Your task to perform on an android device: Open the stopwatch Image 0: 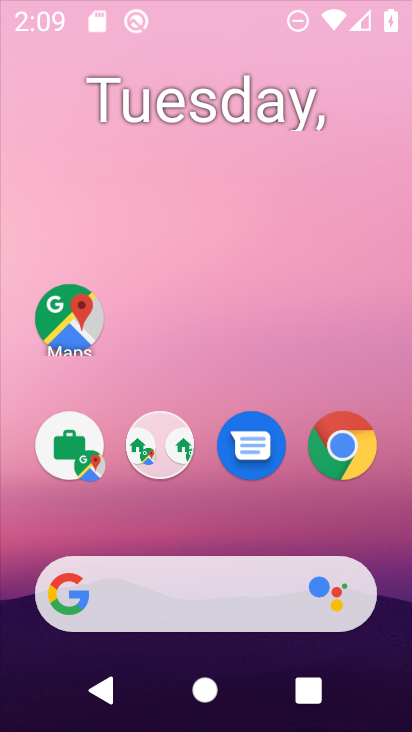
Step 0: drag from (257, 334) to (257, 179)
Your task to perform on an android device: Open the stopwatch Image 1: 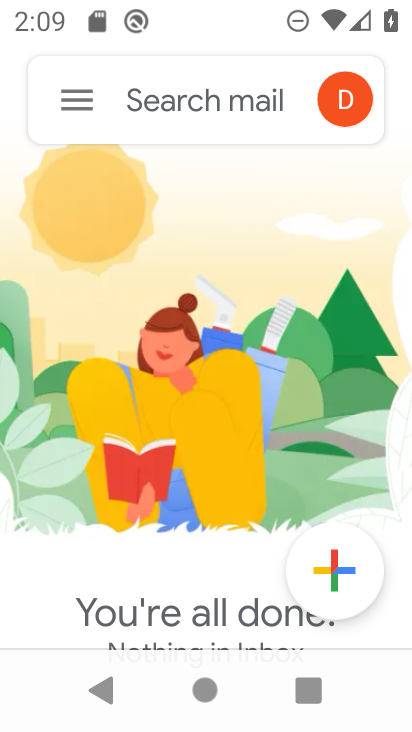
Step 1: press home button
Your task to perform on an android device: Open the stopwatch Image 2: 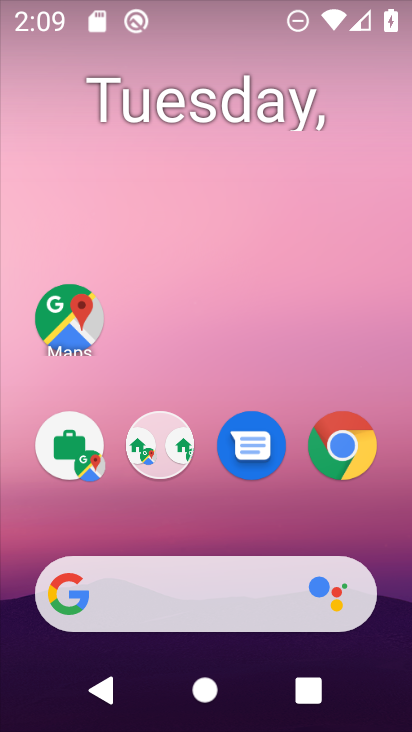
Step 2: drag from (302, 512) to (248, 193)
Your task to perform on an android device: Open the stopwatch Image 3: 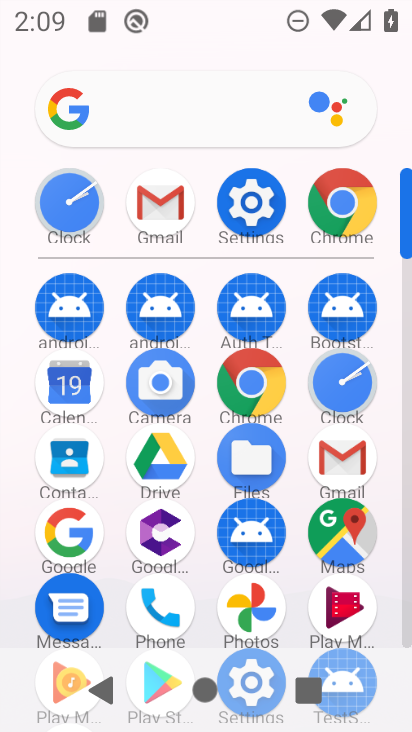
Step 3: click (327, 397)
Your task to perform on an android device: Open the stopwatch Image 4: 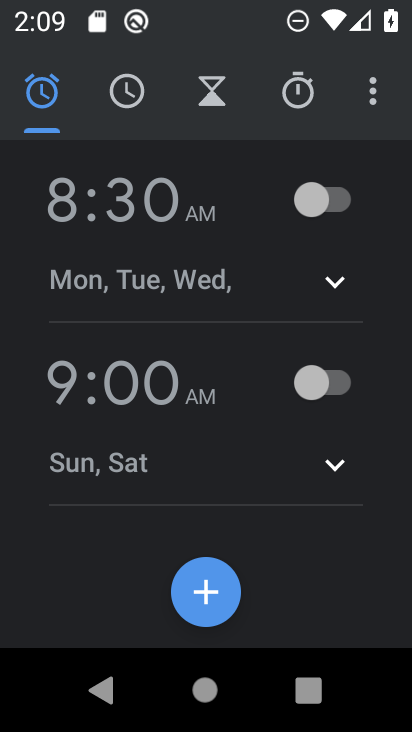
Step 4: click (302, 108)
Your task to perform on an android device: Open the stopwatch Image 5: 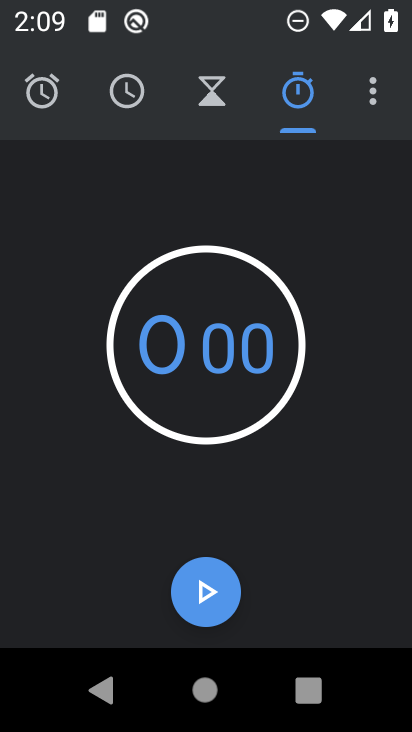
Step 5: task complete